Your task to perform on an android device: find photos in the google photos app Image 0: 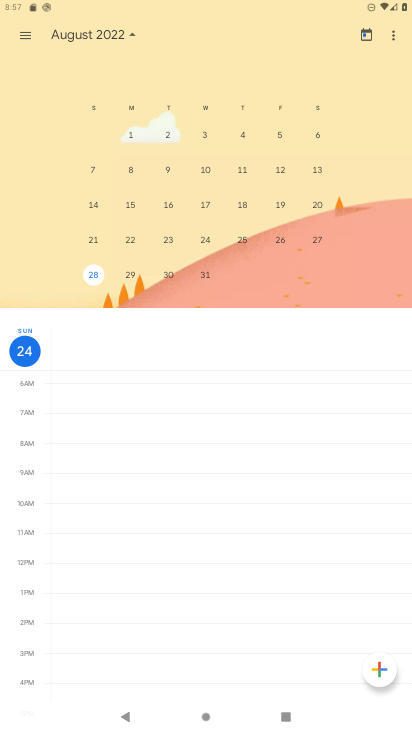
Step 0: press home button
Your task to perform on an android device: find photos in the google photos app Image 1: 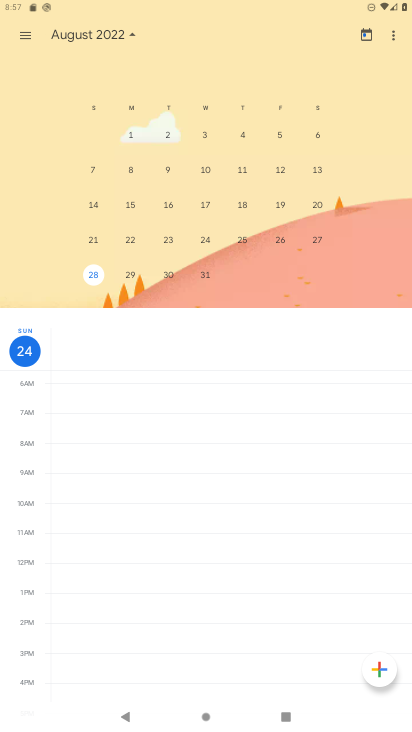
Step 1: drag from (398, 635) to (256, 24)
Your task to perform on an android device: find photos in the google photos app Image 2: 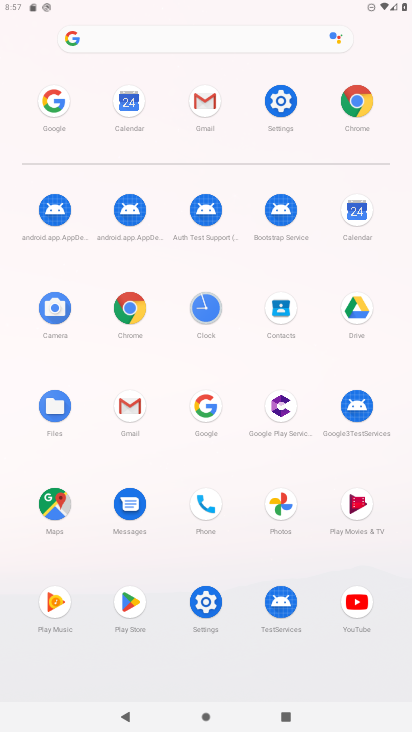
Step 2: click (263, 507)
Your task to perform on an android device: find photos in the google photos app Image 3: 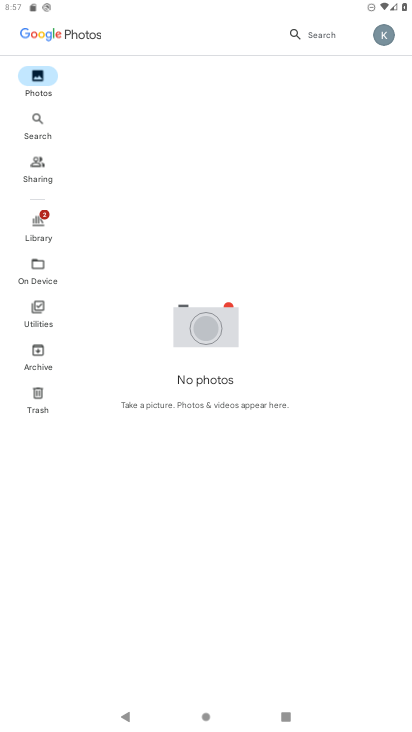
Step 3: task complete